Your task to perform on an android device: delete location history Image 0: 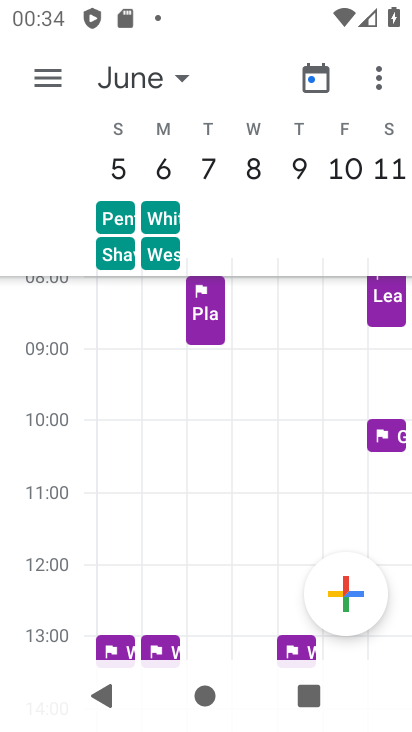
Step 0: press home button
Your task to perform on an android device: delete location history Image 1: 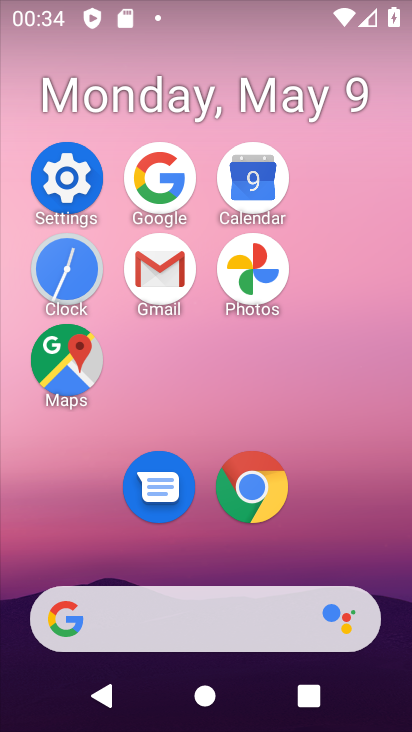
Step 1: click (79, 181)
Your task to perform on an android device: delete location history Image 2: 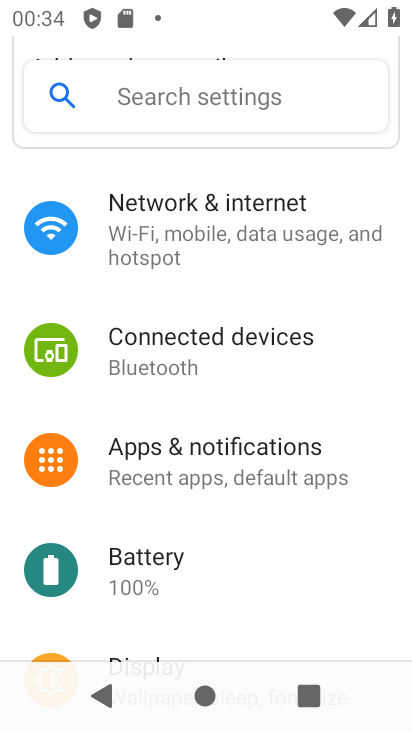
Step 2: drag from (290, 506) to (270, 210)
Your task to perform on an android device: delete location history Image 3: 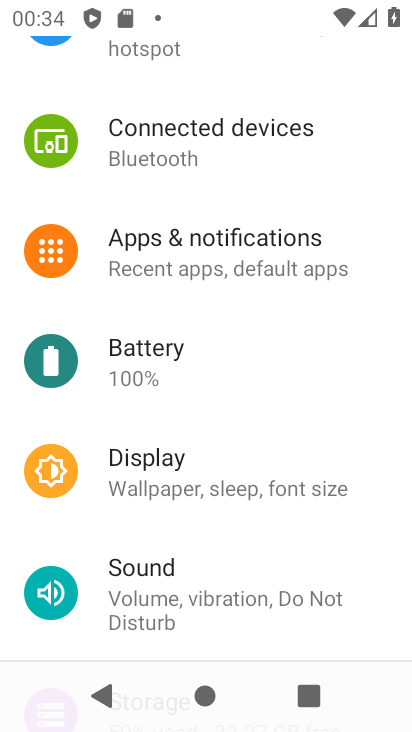
Step 3: drag from (276, 568) to (257, 225)
Your task to perform on an android device: delete location history Image 4: 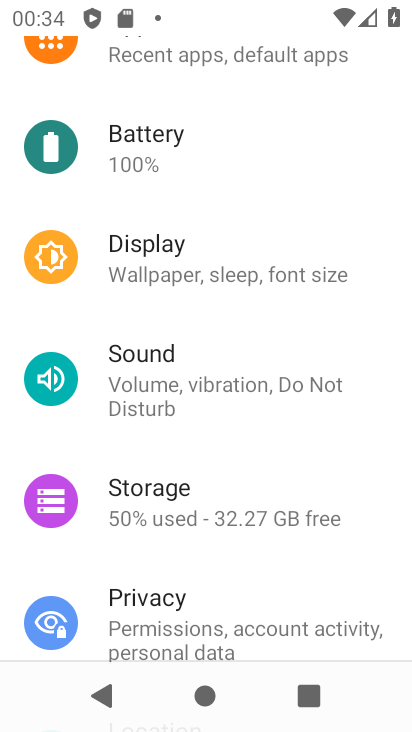
Step 4: drag from (250, 550) to (216, 143)
Your task to perform on an android device: delete location history Image 5: 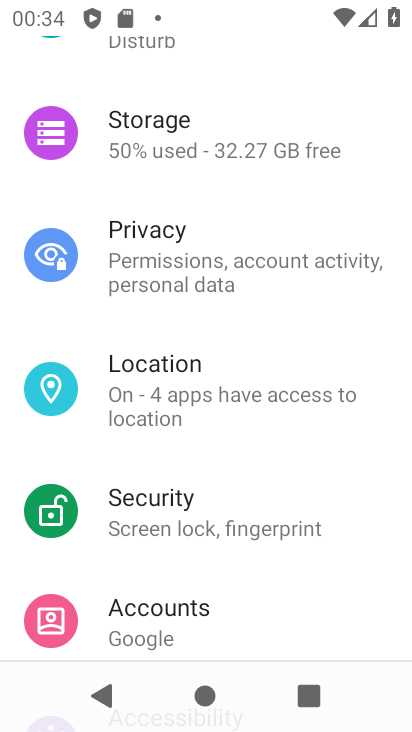
Step 5: click (216, 362)
Your task to perform on an android device: delete location history Image 6: 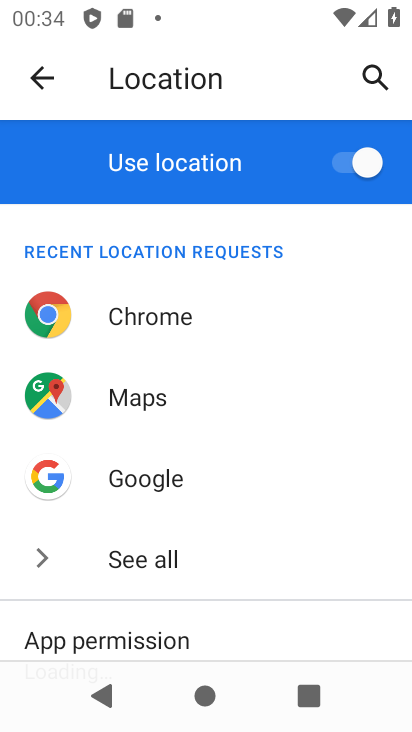
Step 6: drag from (269, 527) to (258, 186)
Your task to perform on an android device: delete location history Image 7: 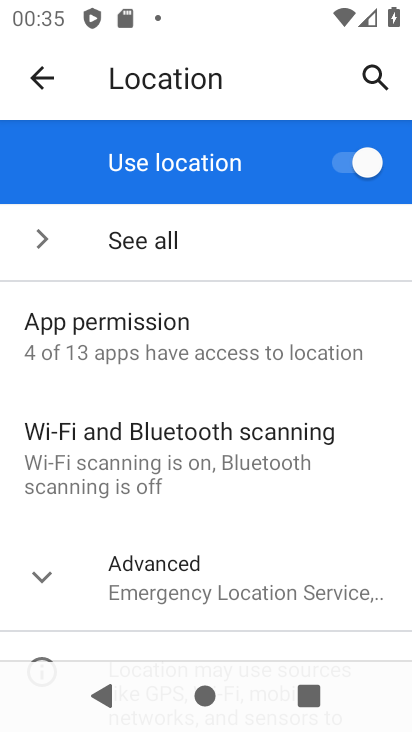
Step 7: click (201, 589)
Your task to perform on an android device: delete location history Image 8: 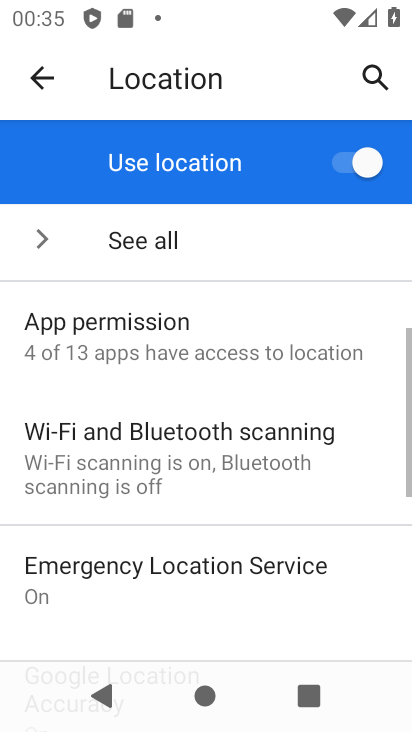
Step 8: drag from (197, 577) to (192, 189)
Your task to perform on an android device: delete location history Image 9: 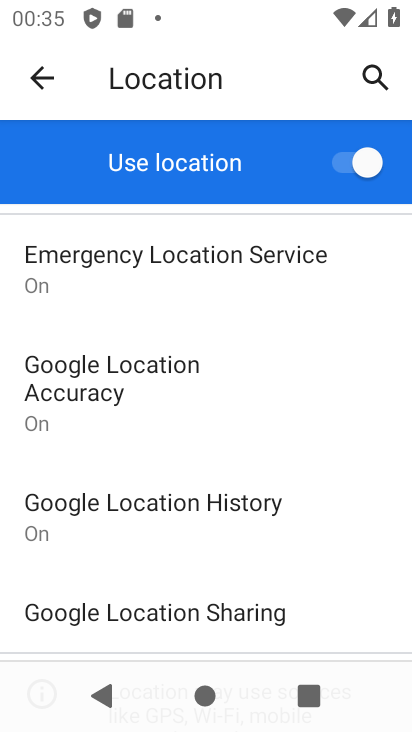
Step 9: click (256, 500)
Your task to perform on an android device: delete location history Image 10: 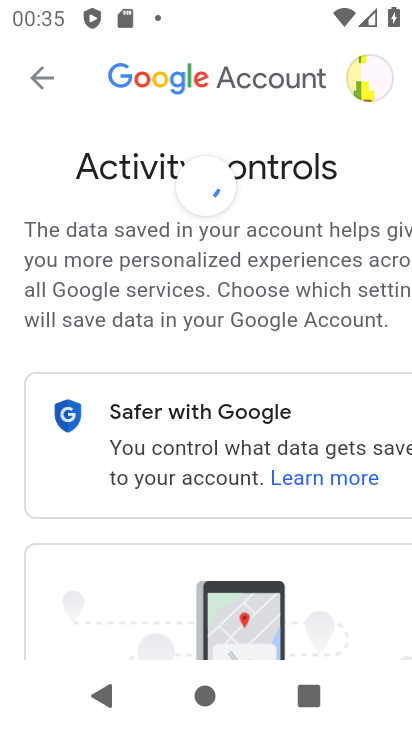
Step 10: drag from (246, 467) to (230, 131)
Your task to perform on an android device: delete location history Image 11: 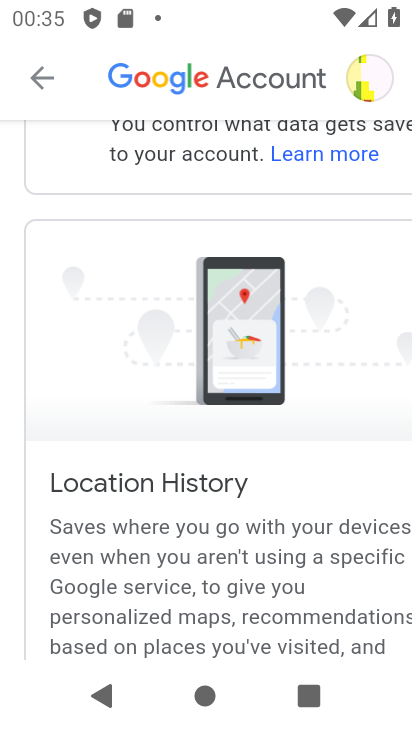
Step 11: drag from (277, 596) to (288, 184)
Your task to perform on an android device: delete location history Image 12: 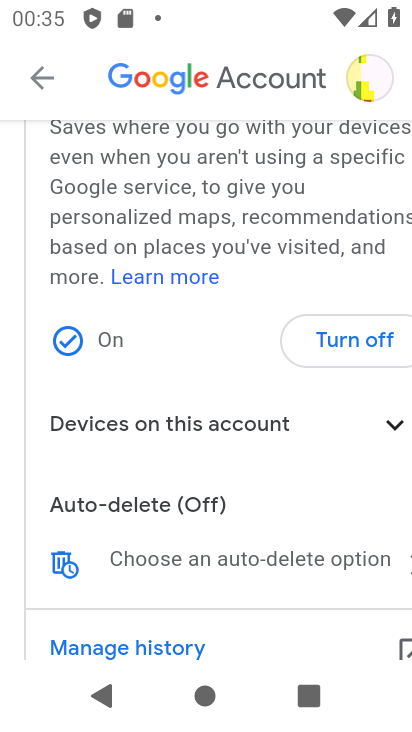
Step 12: drag from (256, 530) to (242, 209)
Your task to perform on an android device: delete location history Image 13: 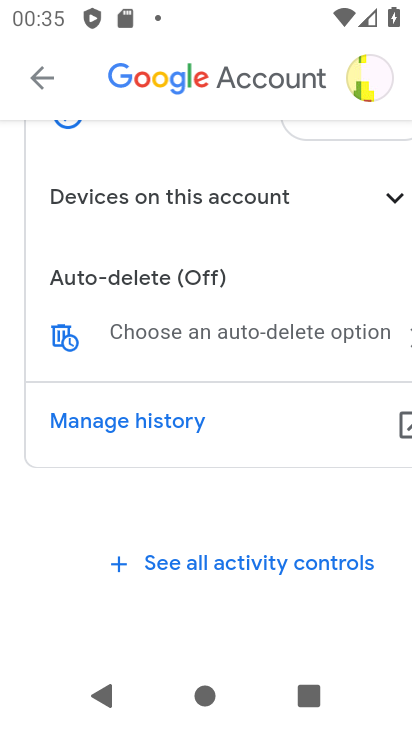
Step 13: click (162, 334)
Your task to perform on an android device: delete location history Image 14: 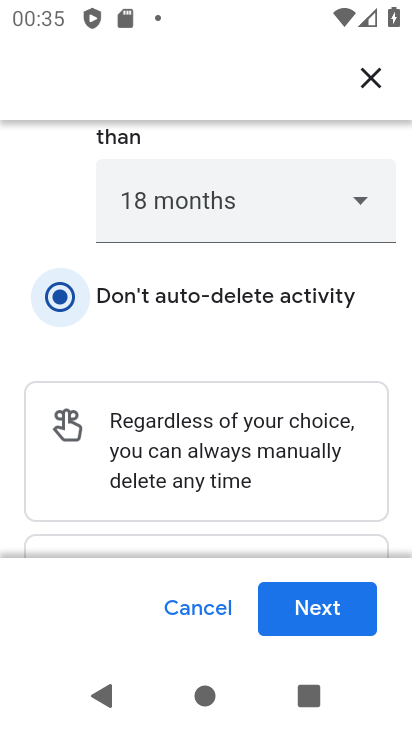
Step 14: drag from (215, 471) to (210, 181)
Your task to perform on an android device: delete location history Image 15: 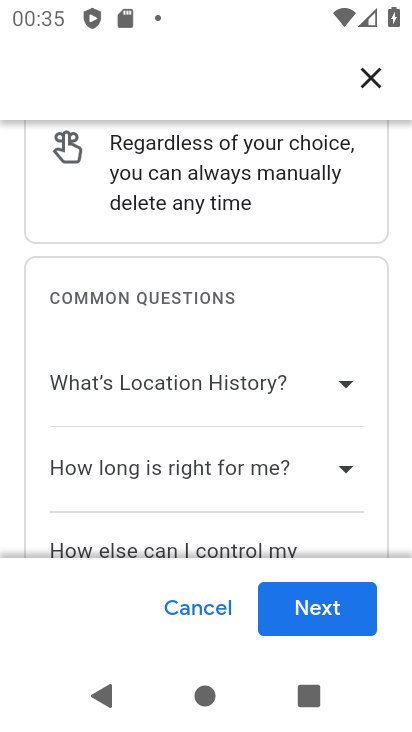
Step 15: drag from (236, 525) to (244, 198)
Your task to perform on an android device: delete location history Image 16: 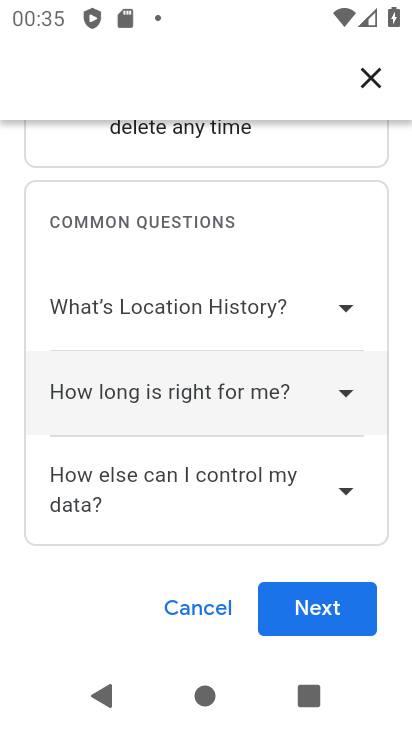
Step 16: click (310, 601)
Your task to perform on an android device: delete location history Image 17: 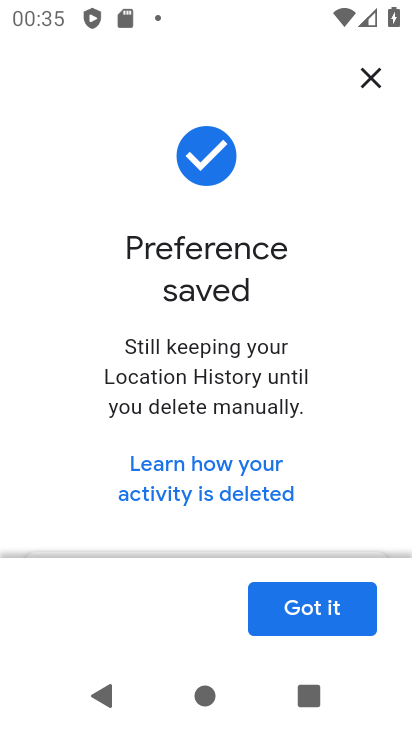
Step 17: click (342, 620)
Your task to perform on an android device: delete location history Image 18: 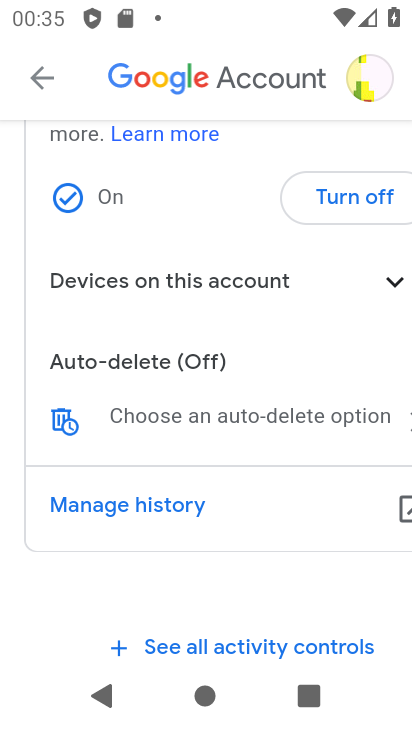
Step 18: task complete